Your task to perform on an android device: star an email in the gmail app Image 0: 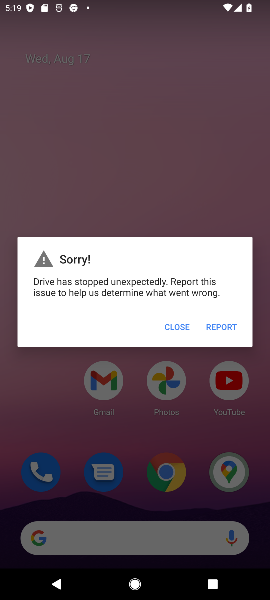
Step 0: click (183, 327)
Your task to perform on an android device: star an email in the gmail app Image 1: 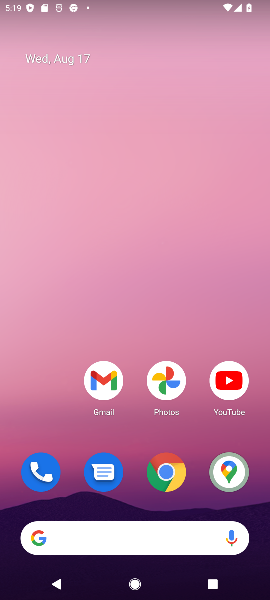
Step 1: click (116, 390)
Your task to perform on an android device: star an email in the gmail app Image 2: 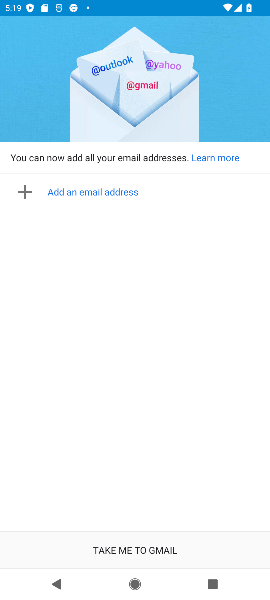
Step 2: task complete